Your task to perform on an android device: Search for seafood restaurants on Google Maps Image 0: 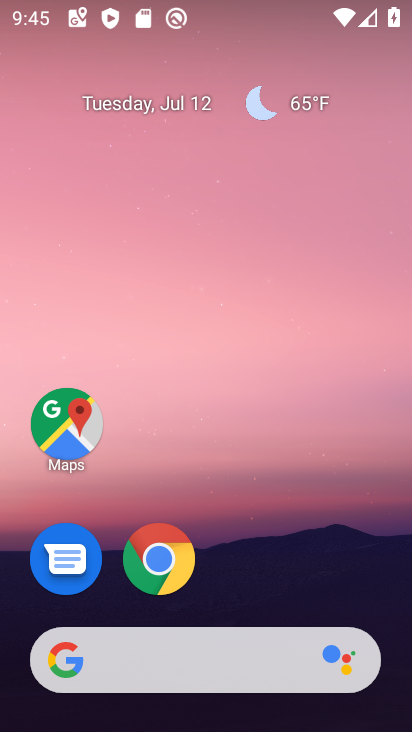
Step 0: drag from (384, 606) to (381, 174)
Your task to perform on an android device: Search for seafood restaurants on Google Maps Image 1: 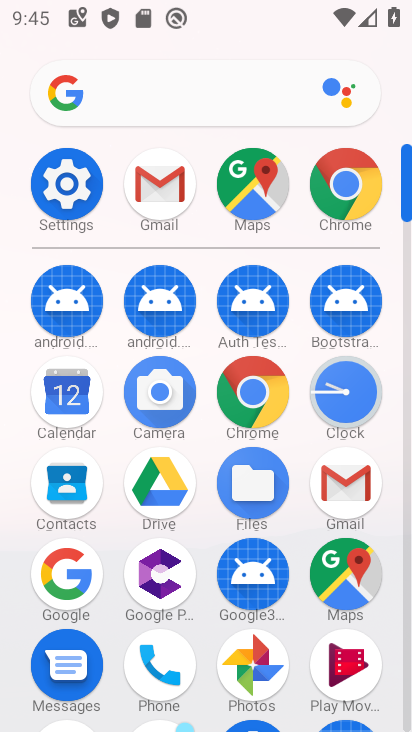
Step 1: click (343, 575)
Your task to perform on an android device: Search for seafood restaurants on Google Maps Image 2: 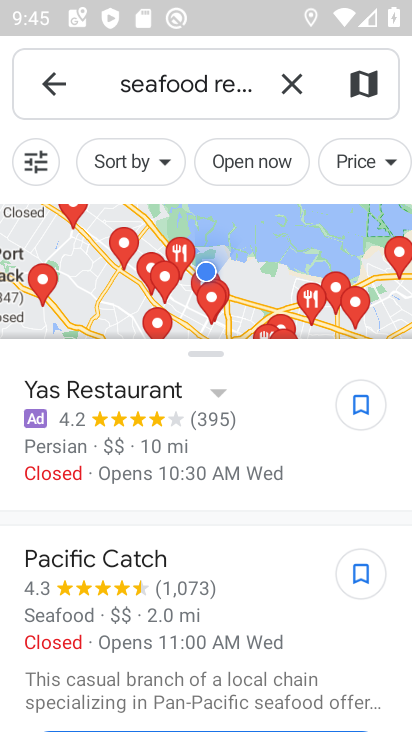
Step 2: task complete